Your task to perform on an android device: turn off priority inbox in the gmail app Image 0: 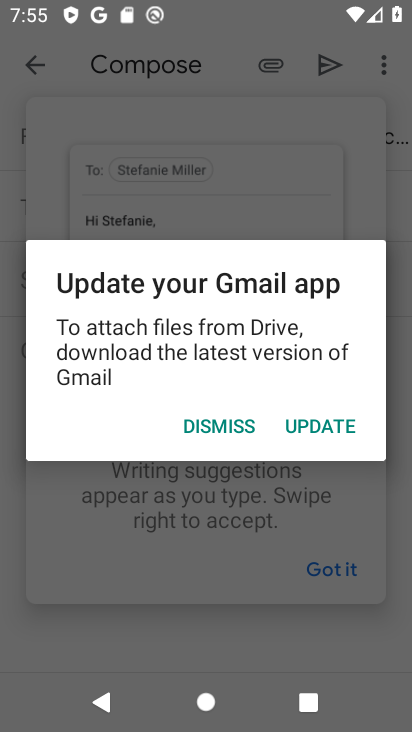
Step 0: press home button
Your task to perform on an android device: turn off priority inbox in the gmail app Image 1: 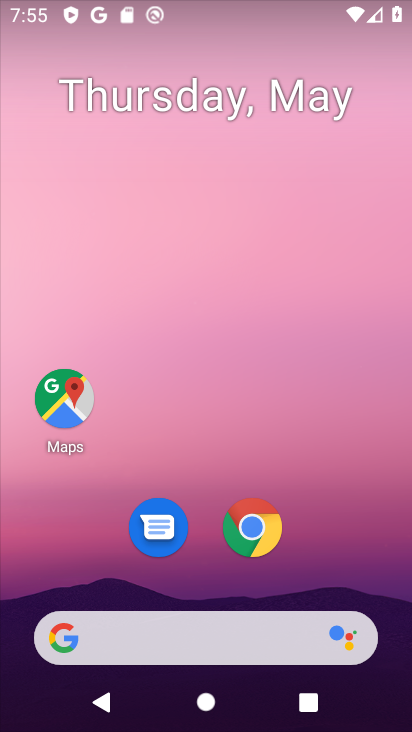
Step 1: drag from (113, 372) to (184, 84)
Your task to perform on an android device: turn off priority inbox in the gmail app Image 2: 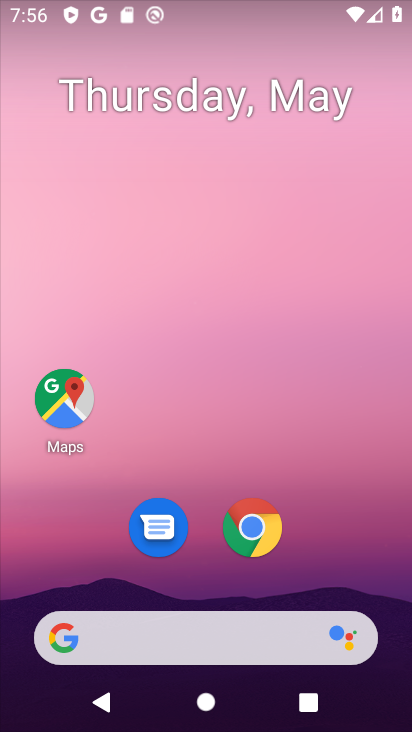
Step 2: drag from (73, 539) to (207, 65)
Your task to perform on an android device: turn off priority inbox in the gmail app Image 3: 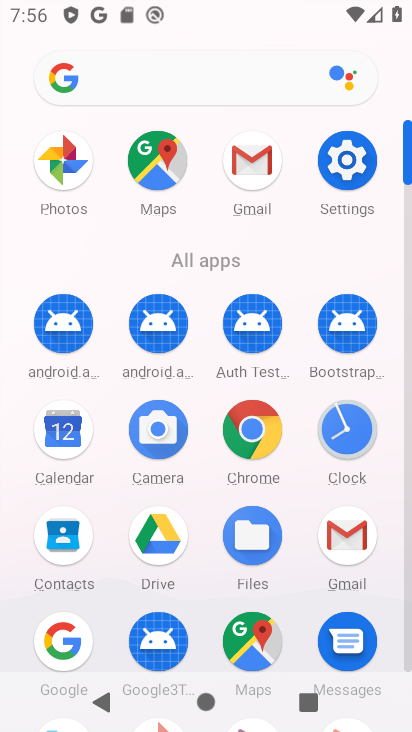
Step 3: click (262, 151)
Your task to perform on an android device: turn off priority inbox in the gmail app Image 4: 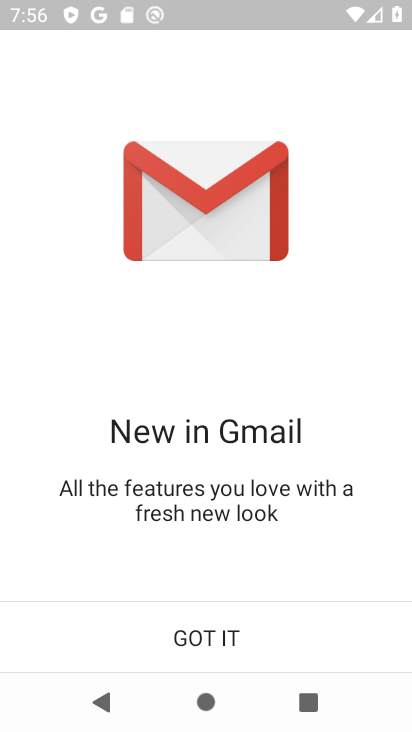
Step 4: click (223, 621)
Your task to perform on an android device: turn off priority inbox in the gmail app Image 5: 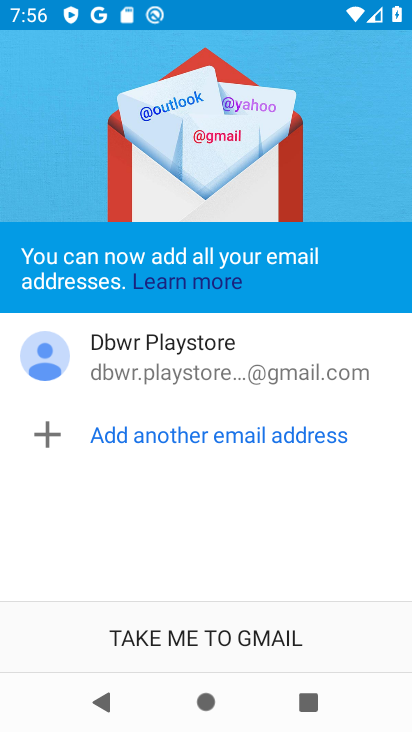
Step 5: click (224, 640)
Your task to perform on an android device: turn off priority inbox in the gmail app Image 6: 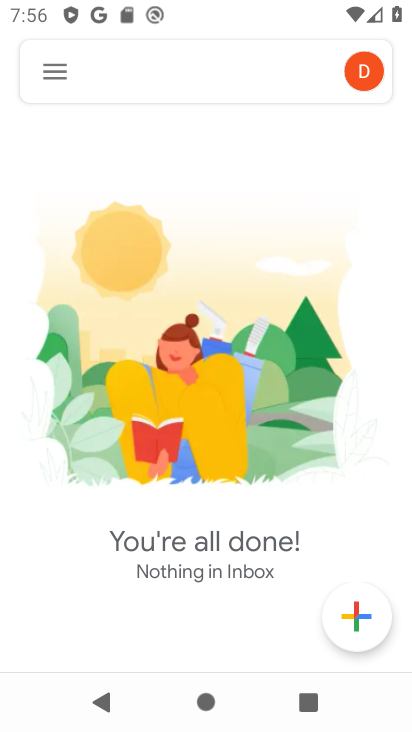
Step 6: click (45, 63)
Your task to perform on an android device: turn off priority inbox in the gmail app Image 7: 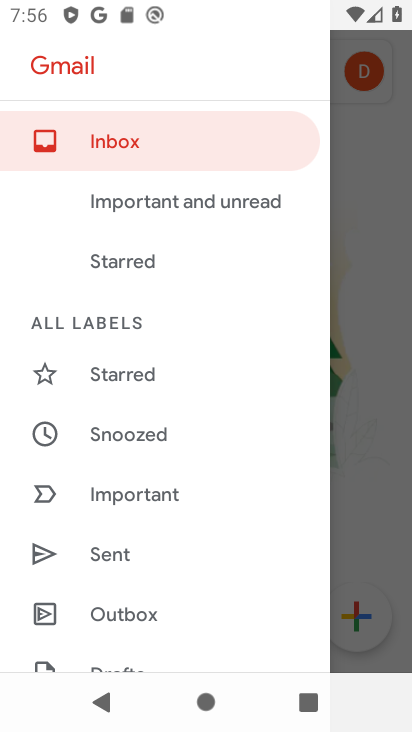
Step 7: drag from (11, 644) to (136, 134)
Your task to perform on an android device: turn off priority inbox in the gmail app Image 8: 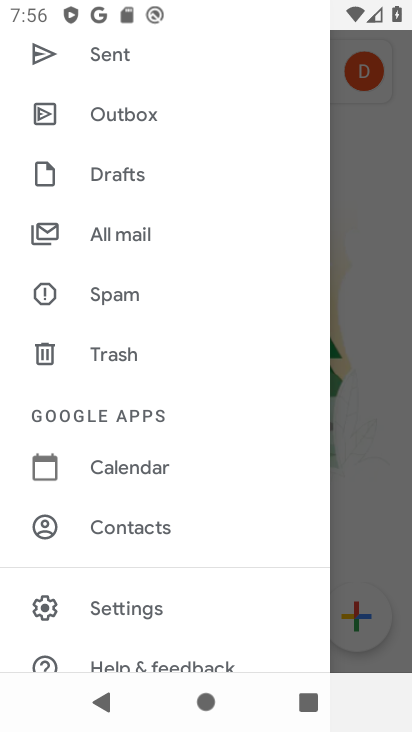
Step 8: click (82, 609)
Your task to perform on an android device: turn off priority inbox in the gmail app Image 9: 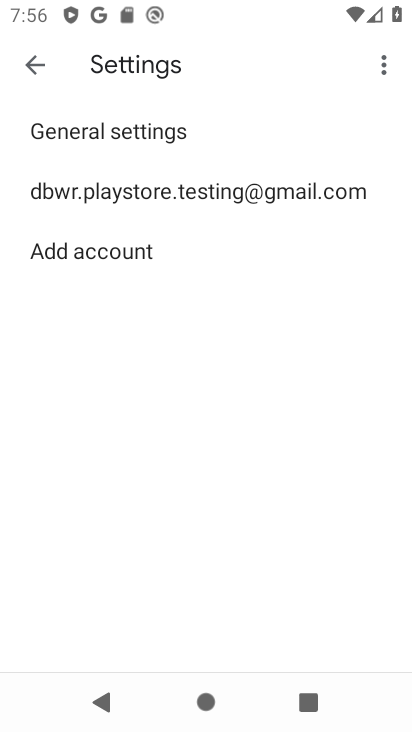
Step 9: click (156, 181)
Your task to perform on an android device: turn off priority inbox in the gmail app Image 10: 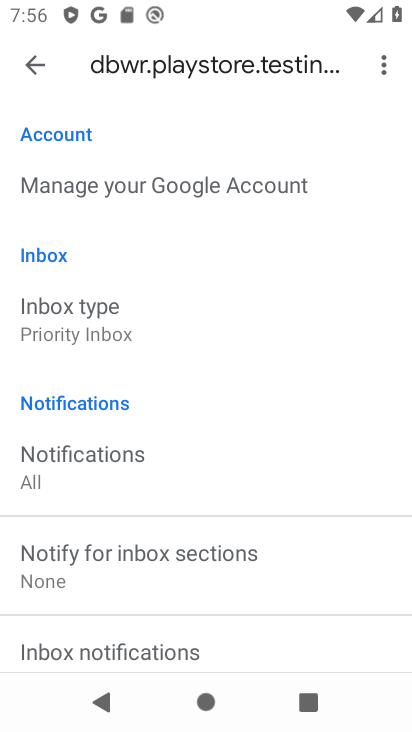
Step 10: click (109, 326)
Your task to perform on an android device: turn off priority inbox in the gmail app Image 11: 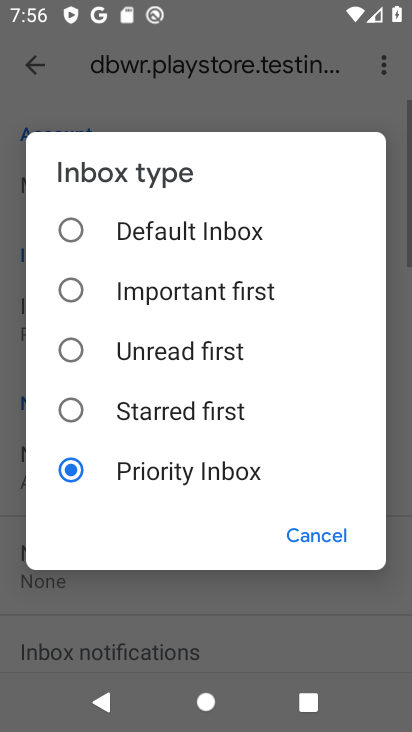
Step 11: click (97, 414)
Your task to perform on an android device: turn off priority inbox in the gmail app Image 12: 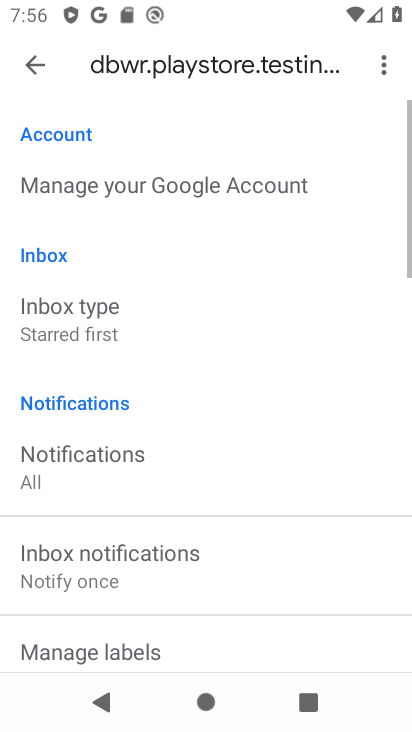
Step 12: task complete